Your task to perform on an android device: Go to Maps Image 0: 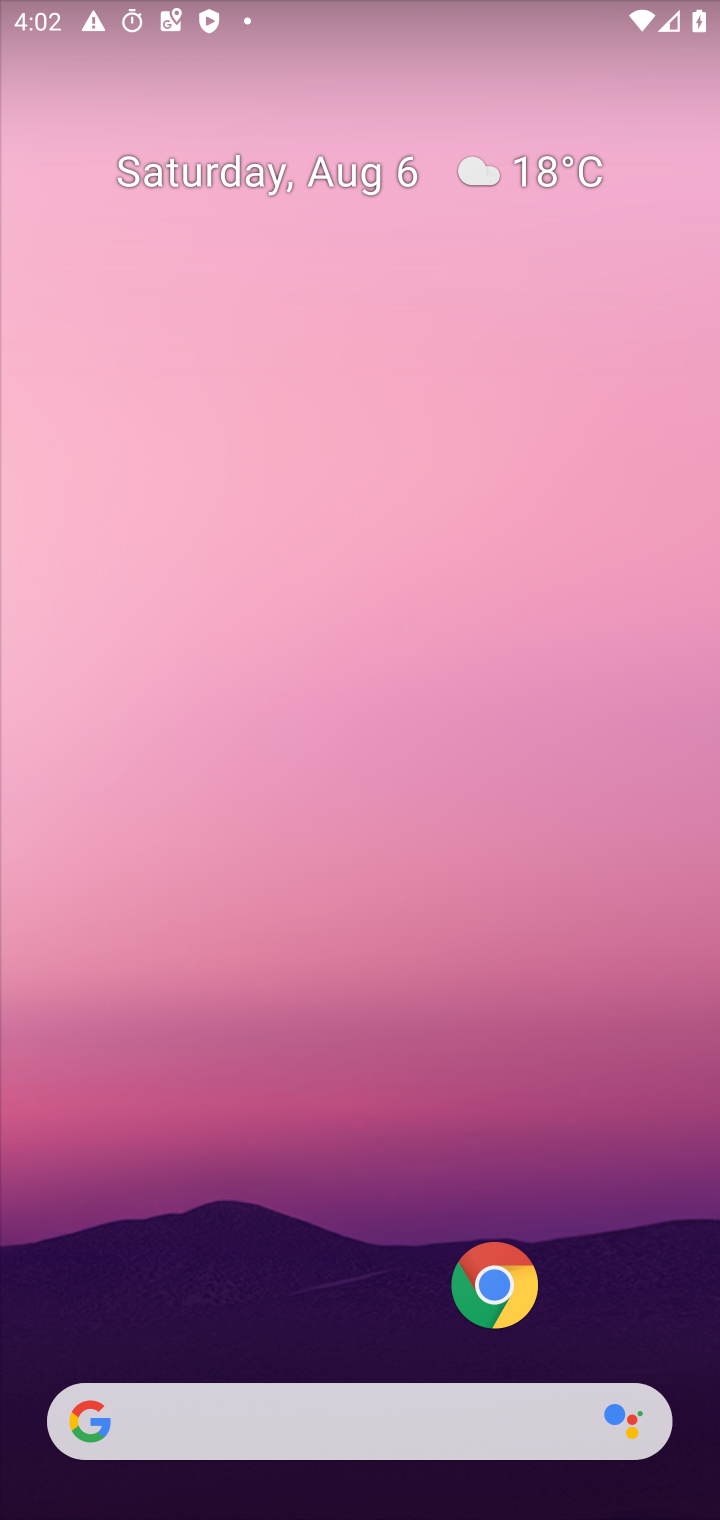
Step 0: drag from (370, 1227) to (383, 322)
Your task to perform on an android device: Go to Maps Image 1: 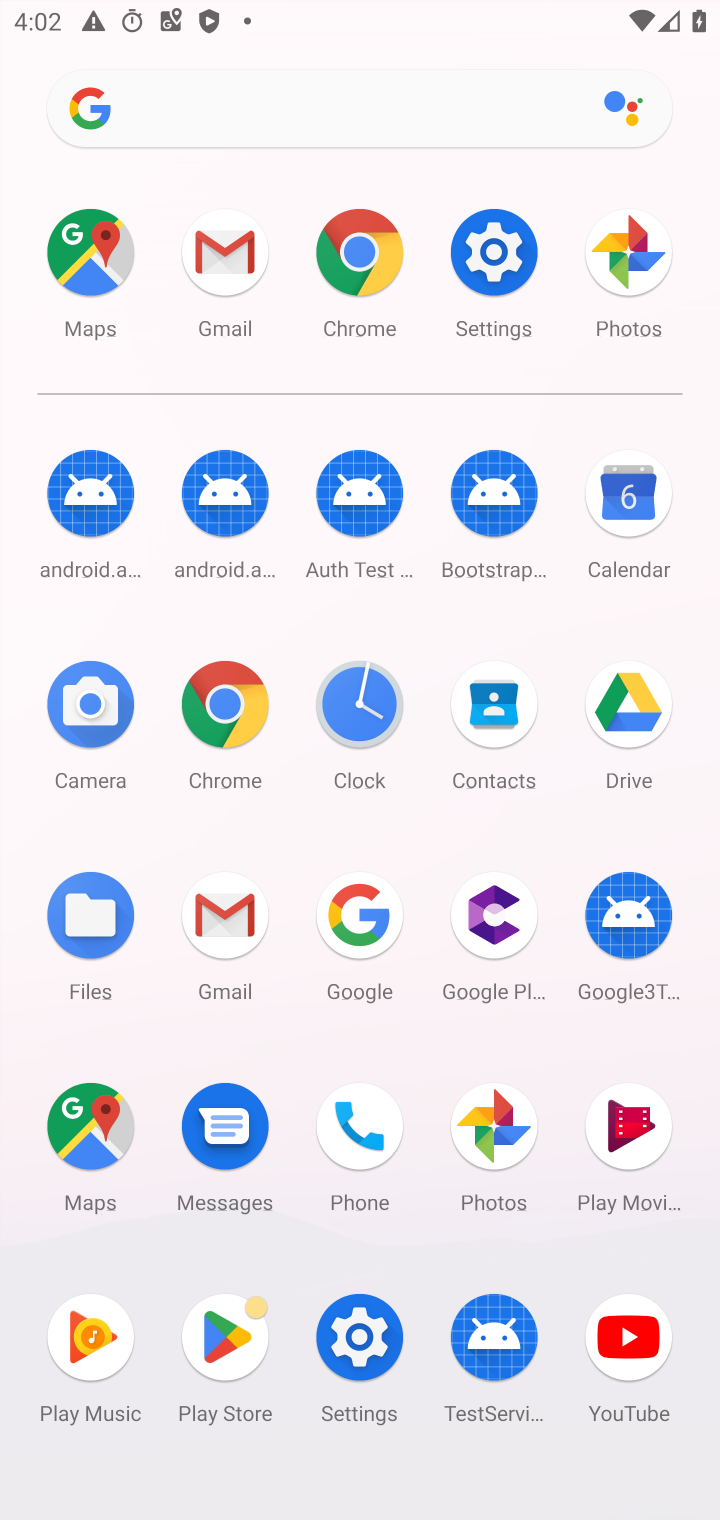
Step 1: click (86, 1120)
Your task to perform on an android device: Go to Maps Image 2: 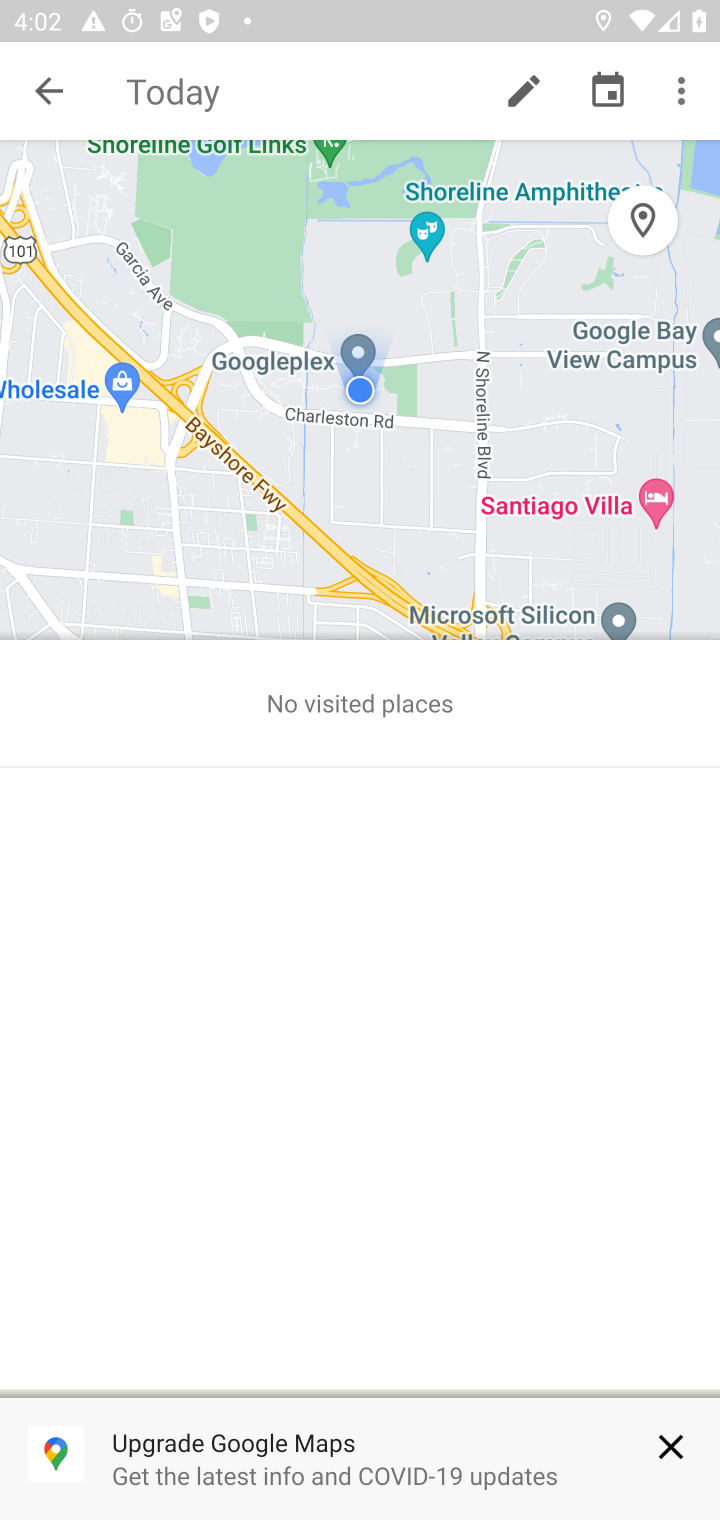
Step 2: click (51, 97)
Your task to perform on an android device: Go to Maps Image 3: 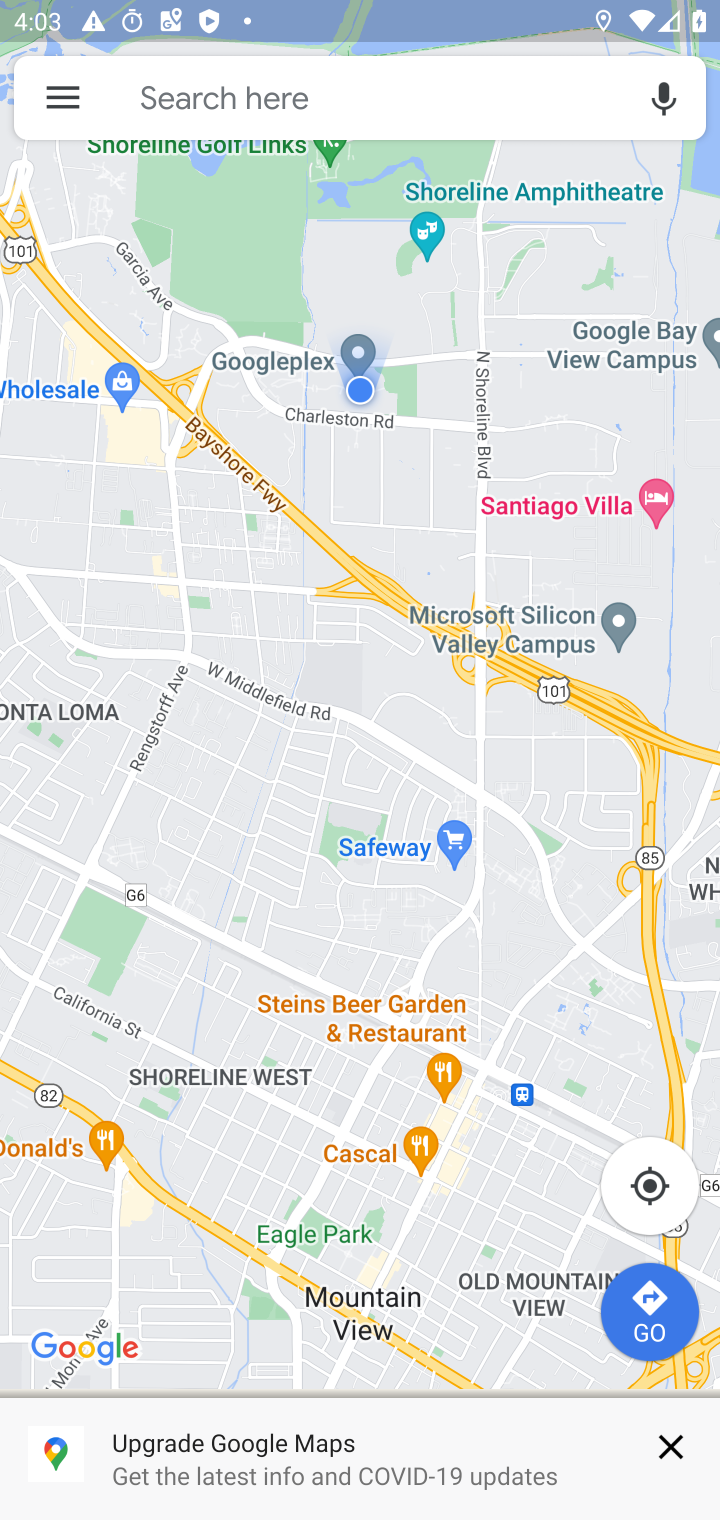
Step 3: task complete